Your task to perform on an android device: What is the recent news? Image 0: 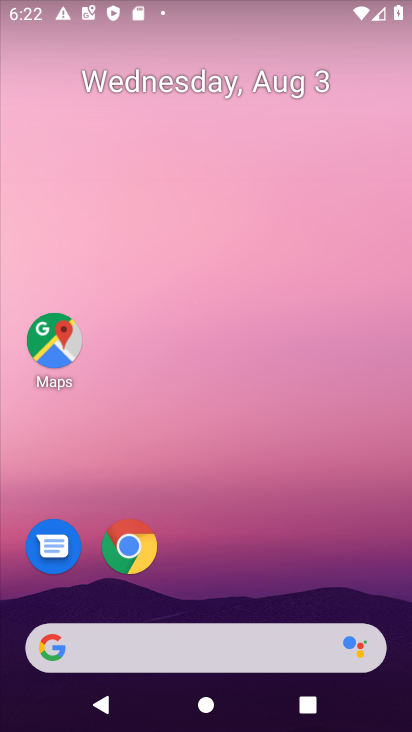
Step 0: press home button
Your task to perform on an android device: What is the recent news? Image 1: 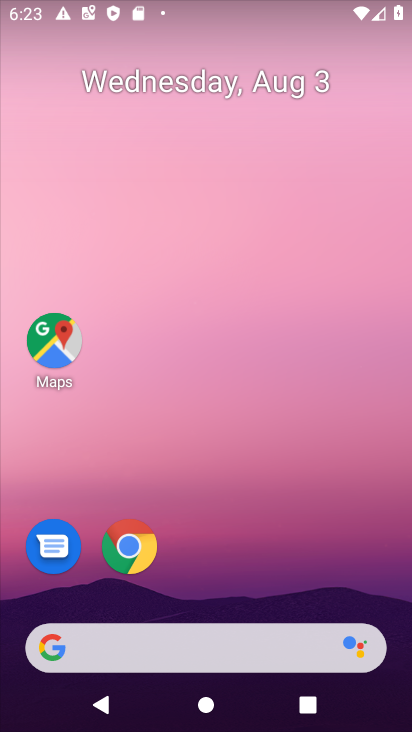
Step 1: click (57, 650)
Your task to perform on an android device: What is the recent news? Image 2: 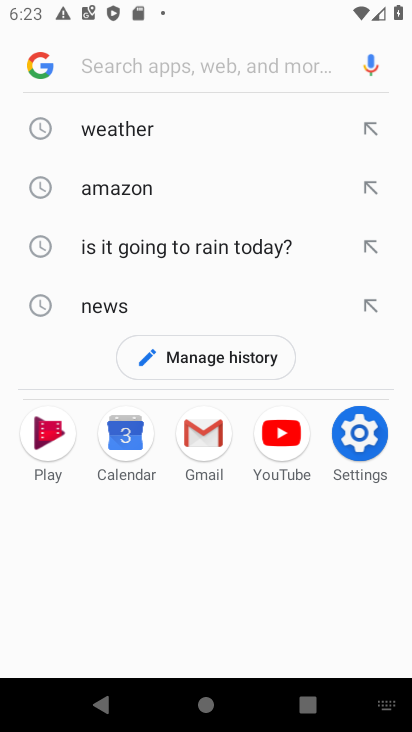
Step 2: type "recent news?"
Your task to perform on an android device: What is the recent news? Image 3: 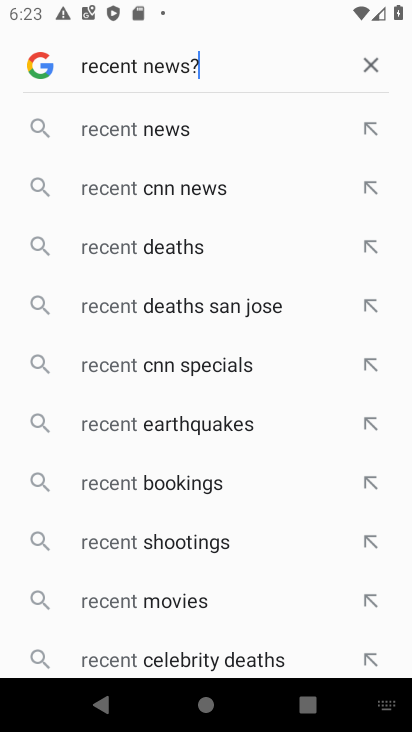
Step 3: press enter
Your task to perform on an android device: What is the recent news? Image 4: 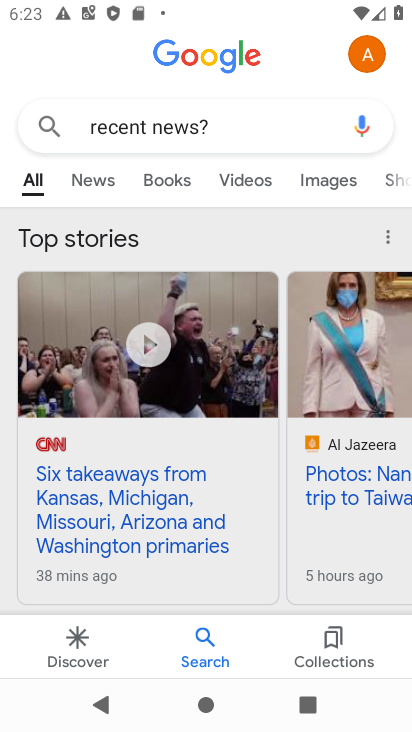
Step 4: task complete